Your task to perform on an android device: Open the web browser Image 0: 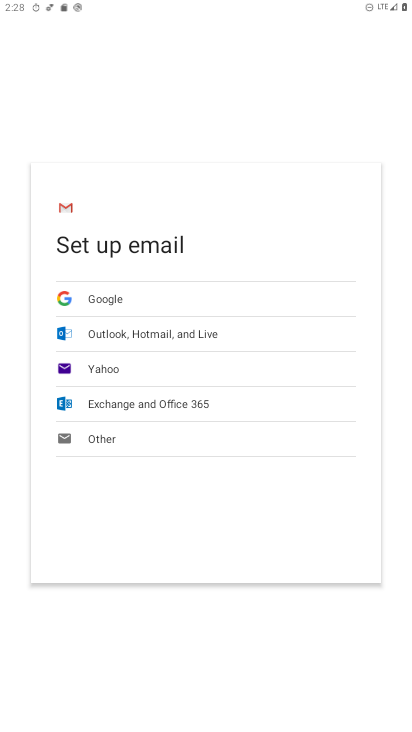
Step 0: press home button
Your task to perform on an android device: Open the web browser Image 1: 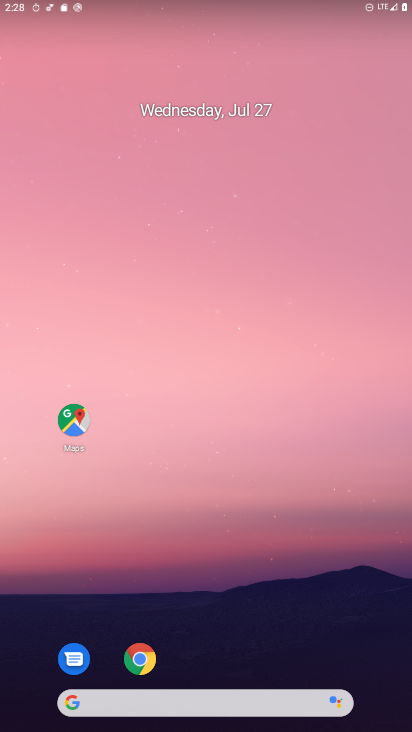
Step 1: click (145, 660)
Your task to perform on an android device: Open the web browser Image 2: 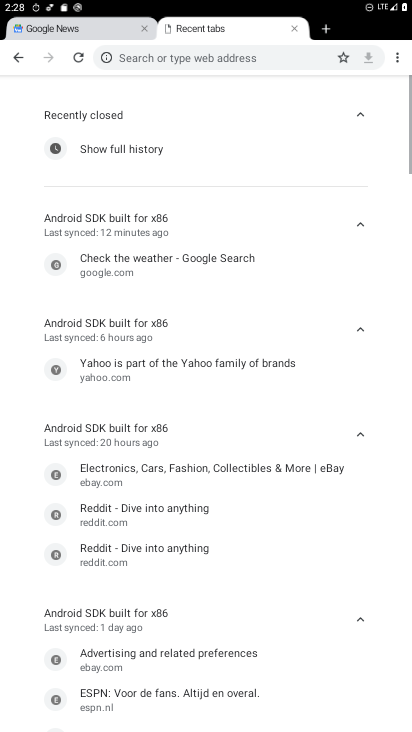
Step 2: click (396, 55)
Your task to perform on an android device: Open the web browser Image 3: 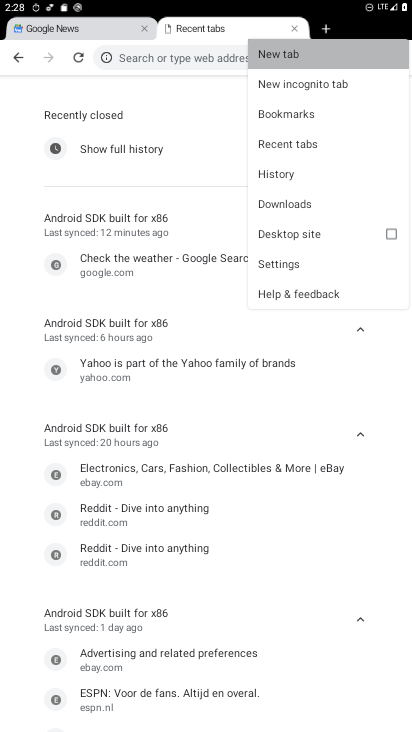
Step 3: task complete